Your task to perform on an android device: Go to Yahoo.com Image 0: 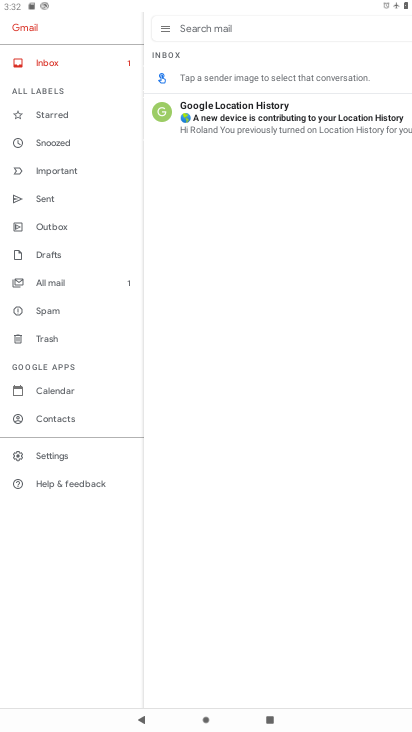
Step 0: press home button
Your task to perform on an android device: Go to Yahoo.com Image 1: 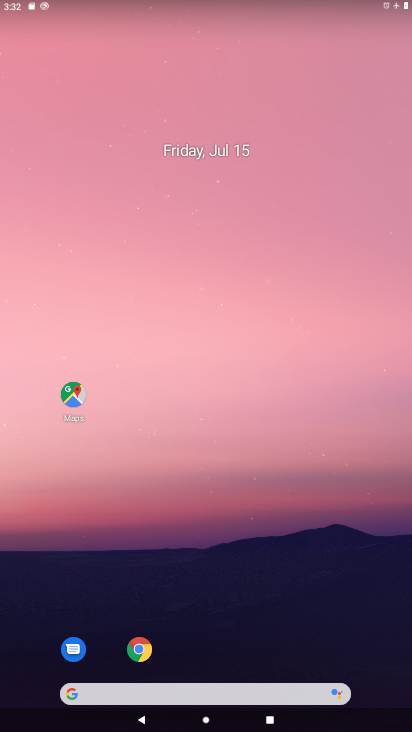
Step 1: click (138, 651)
Your task to perform on an android device: Go to Yahoo.com Image 2: 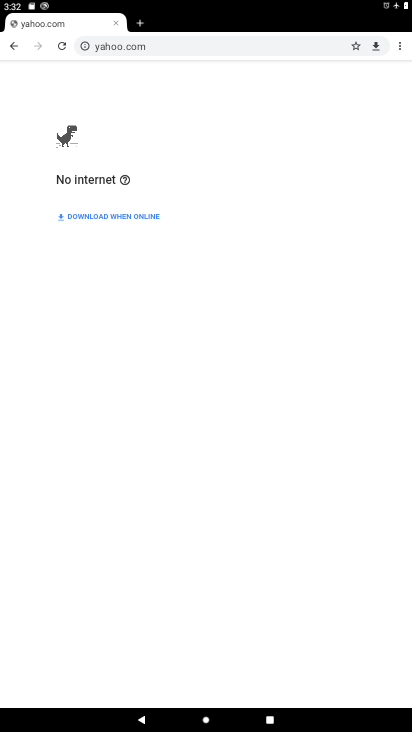
Step 2: click (171, 47)
Your task to perform on an android device: Go to Yahoo.com Image 3: 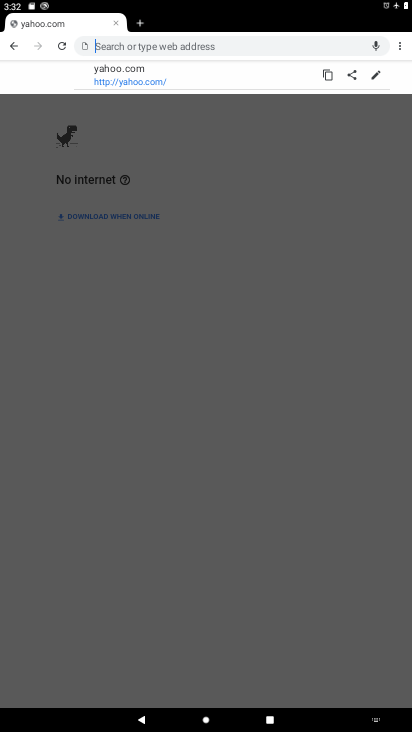
Step 3: type "yahoo.com"
Your task to perform on an android device: Go to Yahoo.com Image 4: 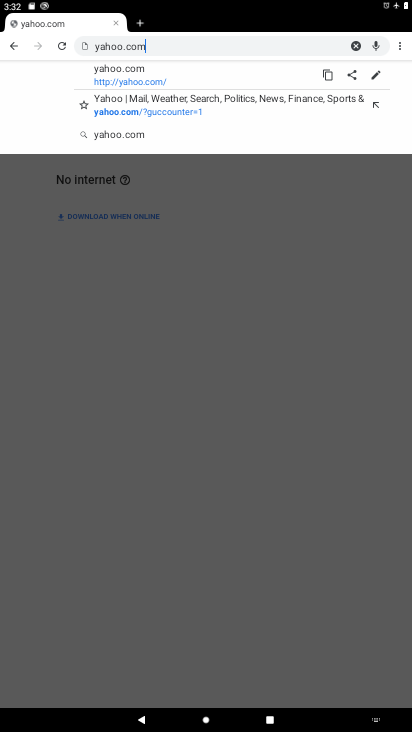
Step 4: click (116, 77)
Your task to perform on an android device: Go to Yahoo.com Image 5: 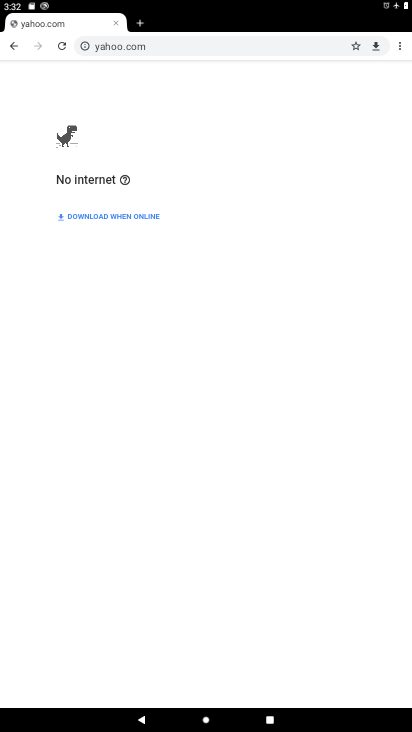
Step 5: task complete